Your task to perform on an android device: Search for sushi restaurants on Maps Image 0: 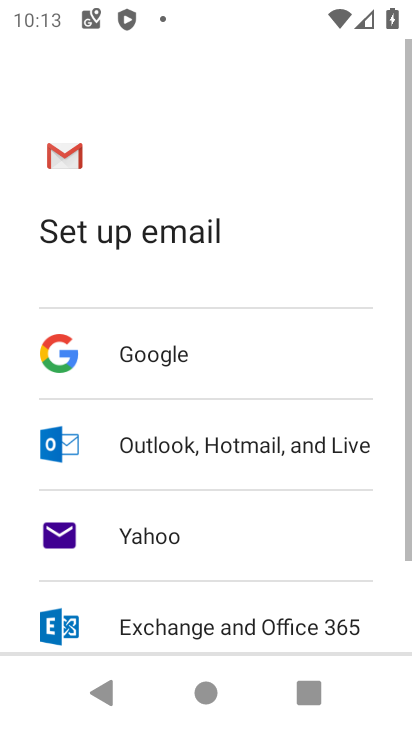
Step 0: drag from (180, 488) to (251, 130)
Your task to perform on an android device: Search for sushi restaurants on Maps Image 1: 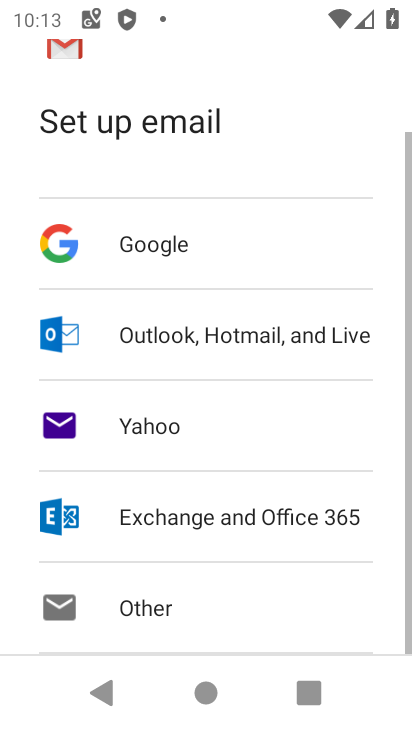
Step 1: drag from (222, 560) to (224, 267)
Your task to perform on an android device: Search for sushi restaurants on Maps Image 2: 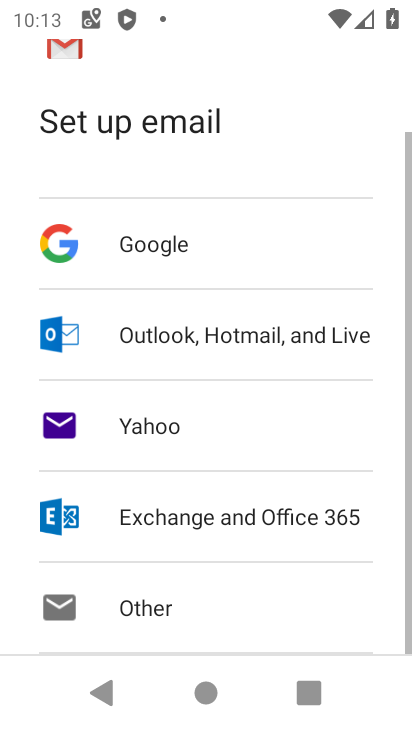
Step 2: drag from (228, 588) to (154, 287)
Your task to perform on an android device: Search for sushi restaurants on Maps Image 3: 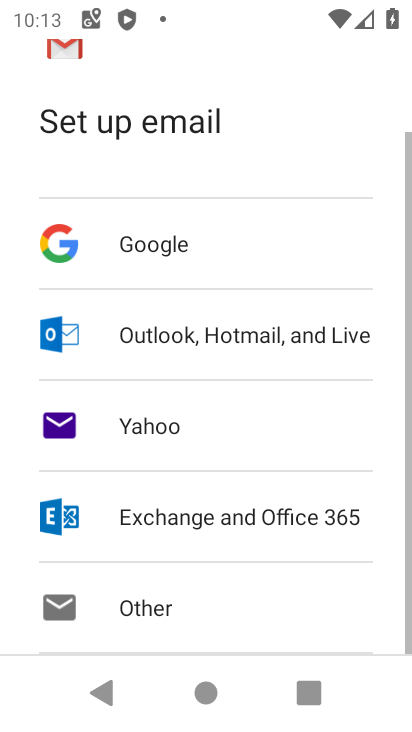
Step 3: drag from (175, 600) to (180, 388)
Your task to perform on an android device: Search for sushi restaurants on Maps Image 4: 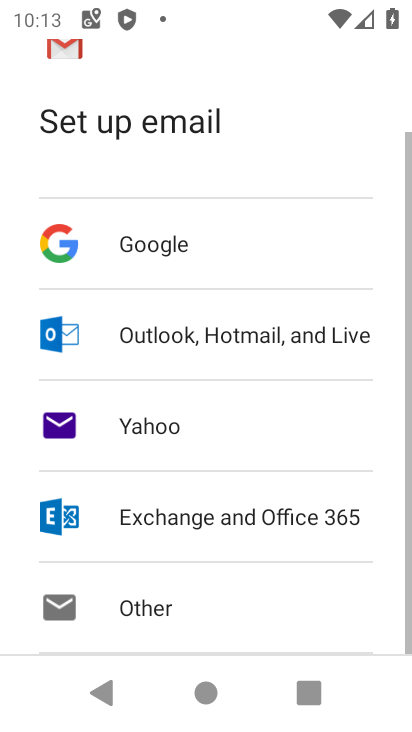
Step 4: drag from (204, 577) to (218, 390)
Your task to perform on an android device: Search for sushi restaurants on Maps Image 5: 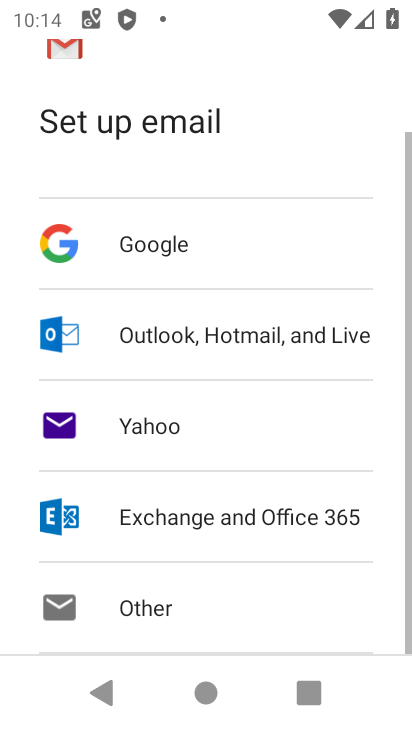
Step 5: drag from (212, 639) to (157, 320)
Your task to perform on an android device: Search for sushi restaurants on Maps Image 6: 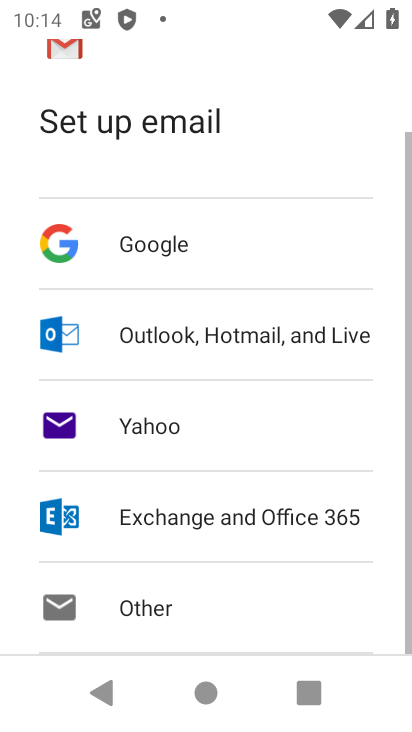
Step 6: press home button
Your task to perform on an android device: Search for sushi restaurants on Maps Image 7: 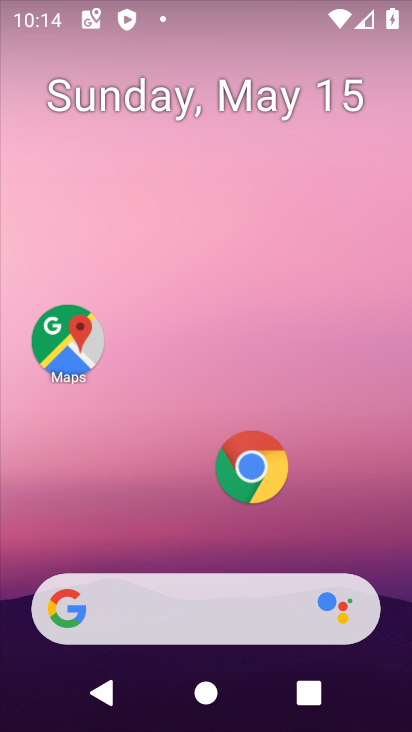
Step 7: drag from (230, 553) to (167, 204)
Your task to perform on an android device: Search for sushi restaurants on Maps Image 8: 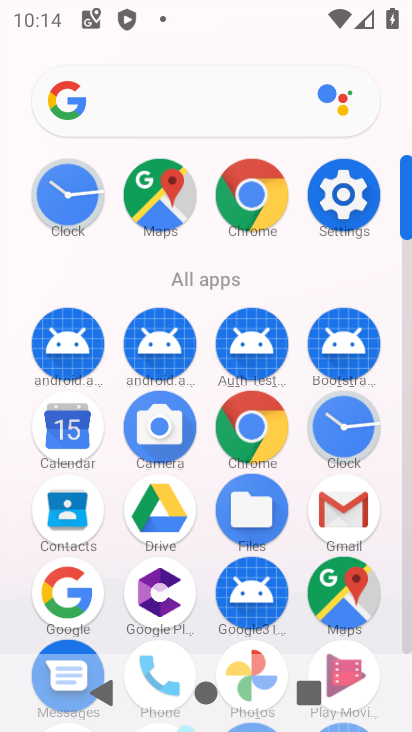
Step 8: click (363, 587)
Your task to perform on an android device: Search for sushi restaurants on Maps Image 9: 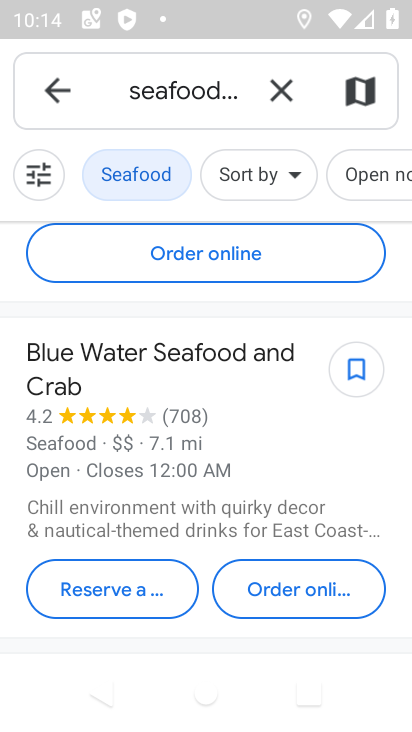
Step 9: click (291, 86)
Your task to perform on an android device: Search for sushi restaurants on Maps Image 10: 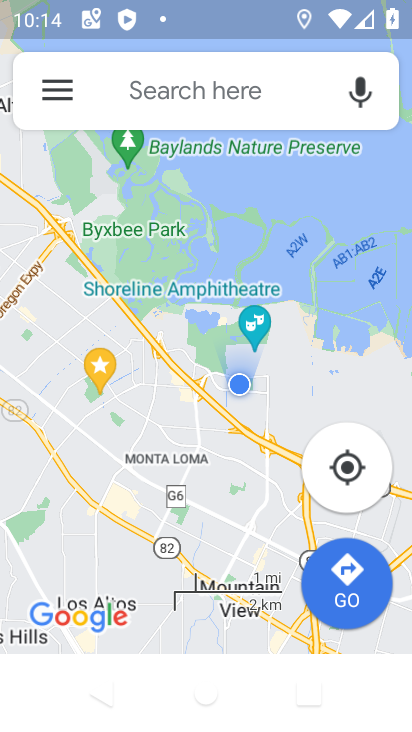
Step 10: click (218, 93)
Your task to perform on an android device: Search for sushi restaurants on Maps Image 11: 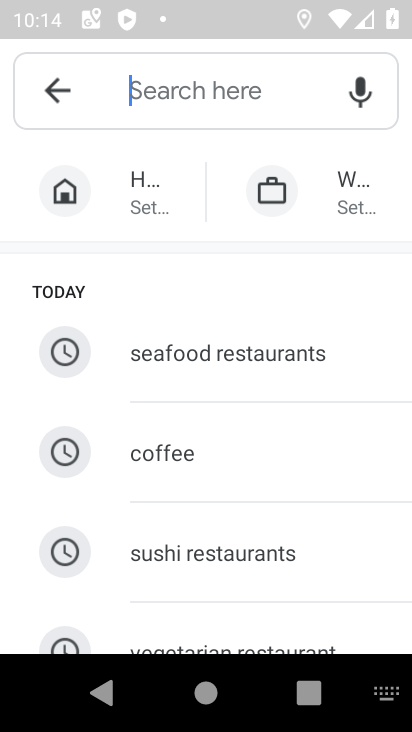
Step 11: click (220, 581)
Your task to perform on an android device: Search for sushi restaurants on Maps Image 12: 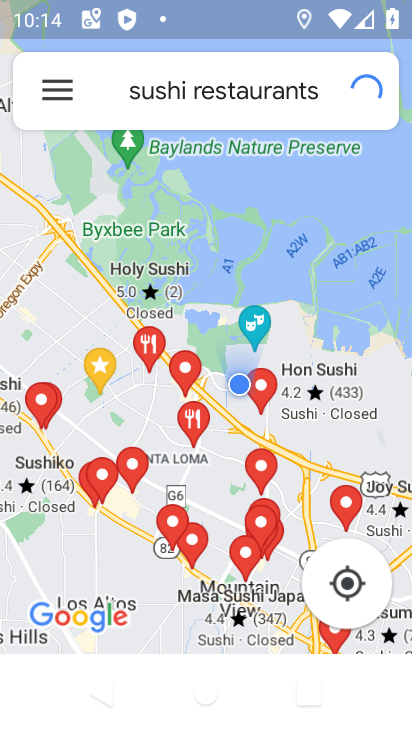
Step 12: task complete